Your task to perform on an android device: visit the assistant section in the google photos Image 0: 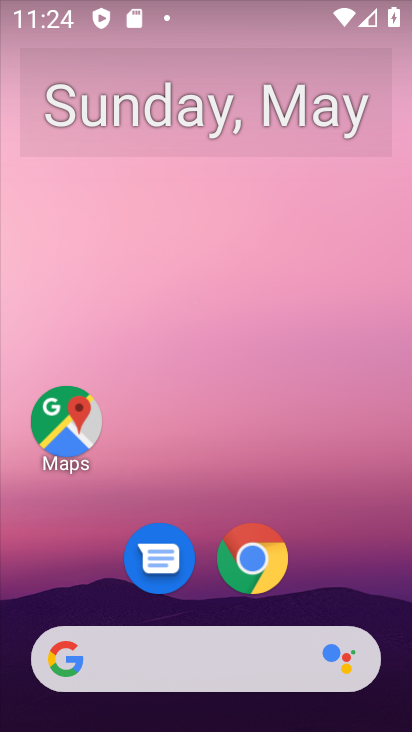
Step 0: drag from (350, 598) to (370, 204)
Your task to perform on an android device: visit the assistant section in the google photos Image 1: 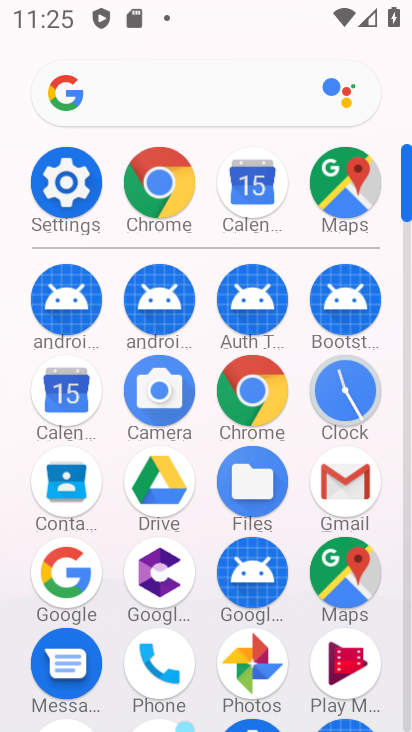
Step 1: click (278, 658)
Your task to perform on an android device: visit the assistant section in the google photos Image 2: 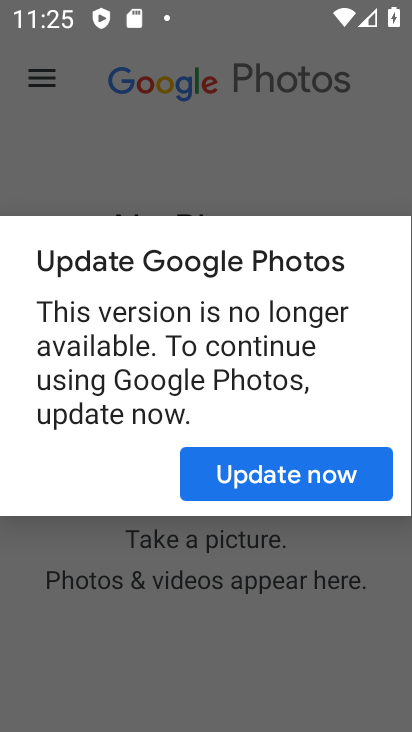
Step 2: click (341, 466)
Your task to perform on an android device: visit the assistant section in the google photos Image 3: 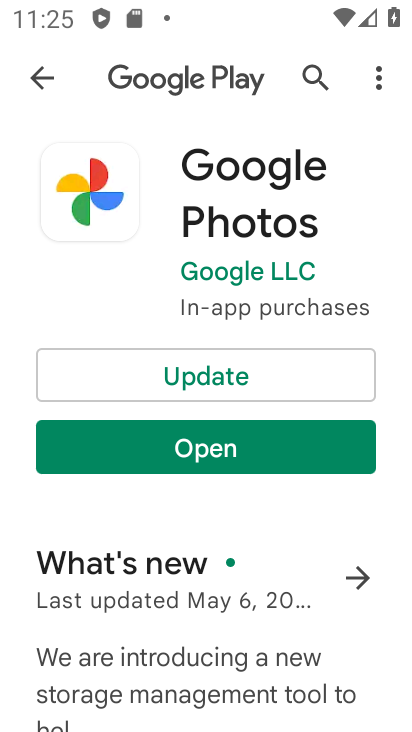
Step 3: click (201, 369)
Your task to perform on an android device: visit the assistant section in the google photos Image 4: 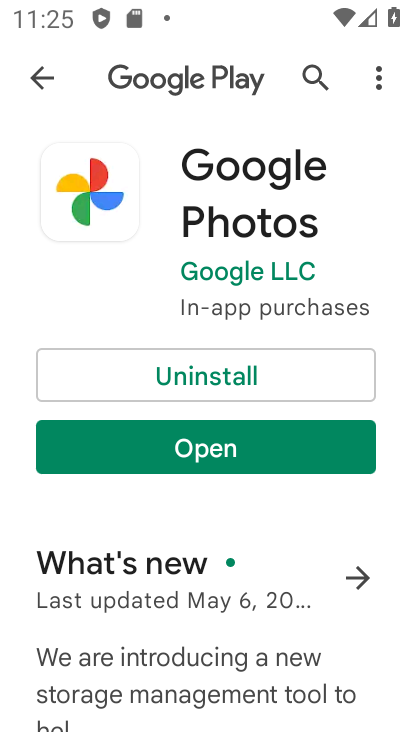
Step 4: click (244, 446)
Your task to perform on an android device: visit the assistant section in the google photos Image 5: 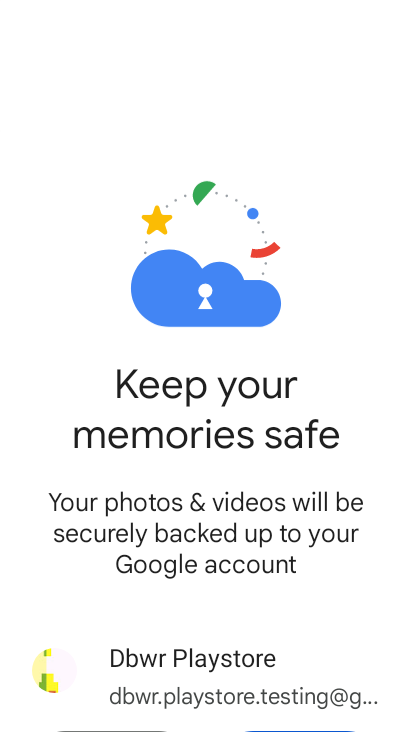
Step 5: press home button
Your task to perform on an android device: visit the assistant section in the google photos Image 6: 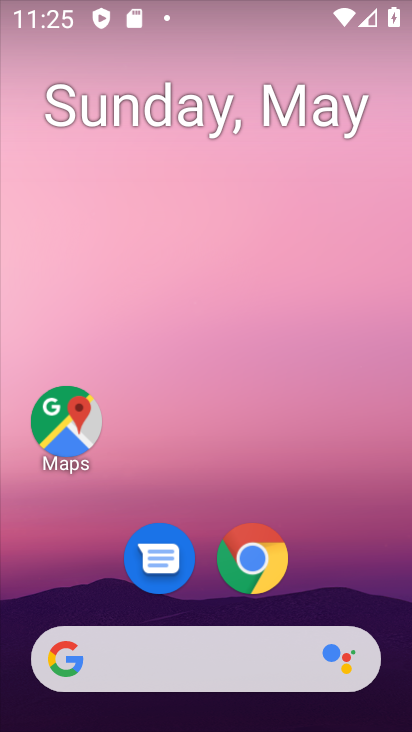
Step 6: drag from (367, 591) to (374, 118)
Your task to perform on an android device: visit the assistant section in the google photos Image 7: 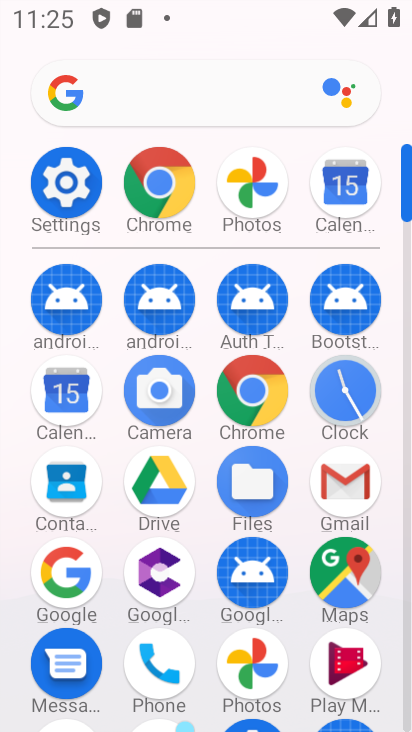
Step 7: click (249, 665)
Your task to perform on an android device: visit the assistant section in the google photos Image 8: 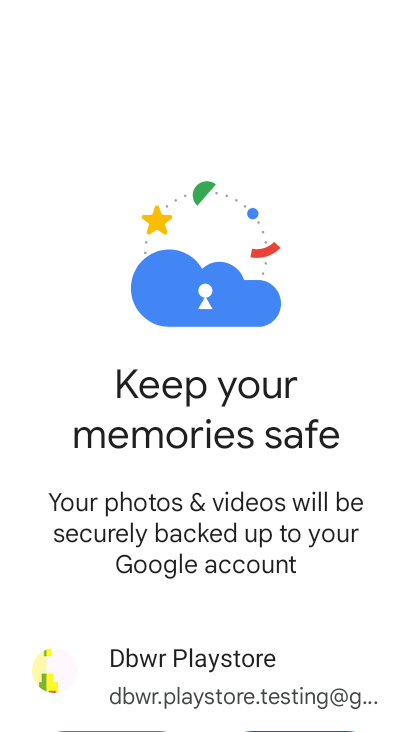
Step 8: drag from (361, 627) to (377, 366)
Your task to perform on an android device: visit the assistant section in the google photos Image 9: 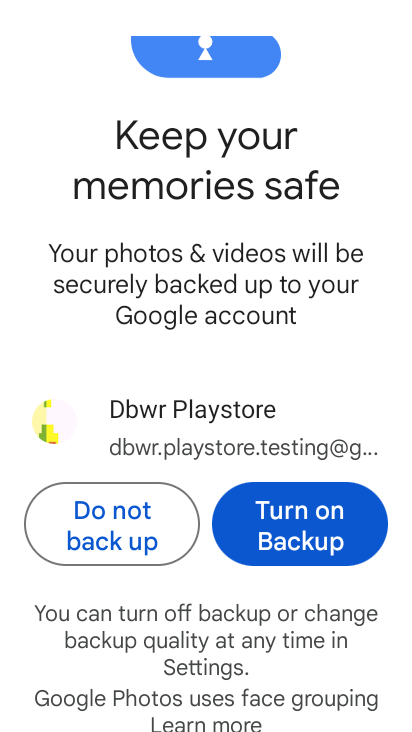
Step 9: drag from (318, 658) to (350, 343)
Your task to perform on an android device: visit the assistant section in the google photos Image 10: 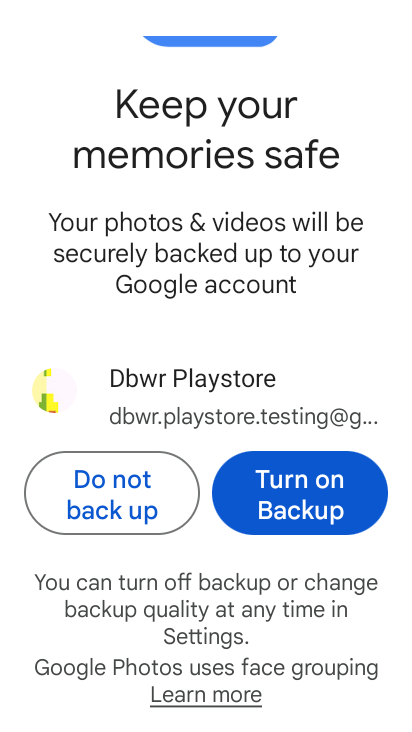
Step 10: click (298, 501)
Your task to perform on an android device: visit the assistant section in the google photos Image 11: 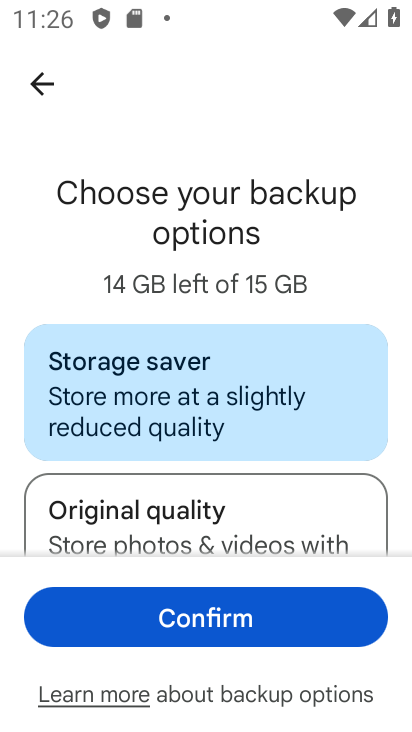
Step 11: click (270, 620)
Your task to perform on an android device: visit the assistant section in the google photos Image 12: 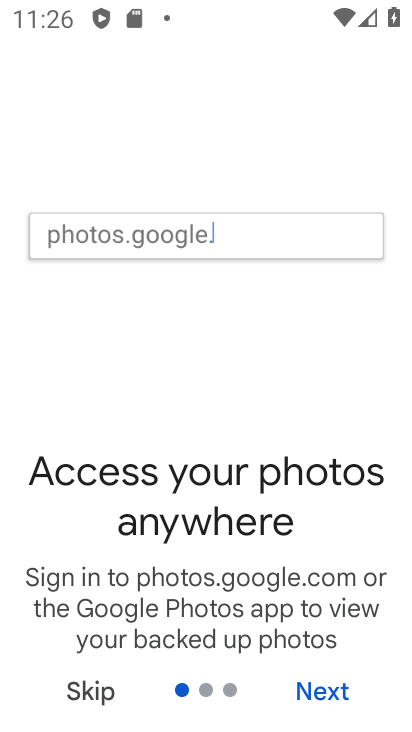
Step 12: click (336, 700)
Your task to perform on an android device: visit the assistant section in the google photos Image 13: 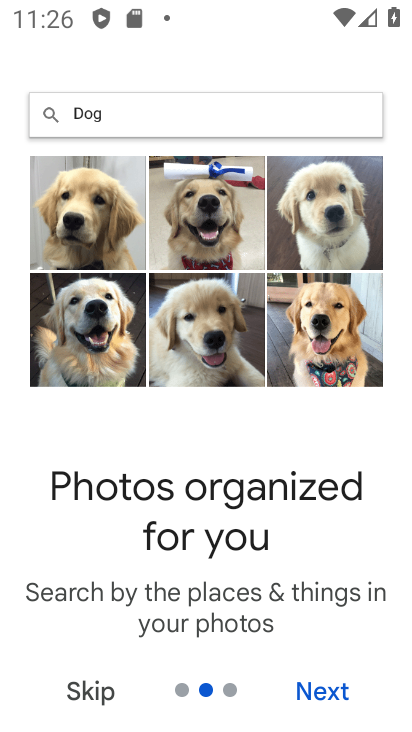
Step 13: click (325, 689)
Your task to perform on an android device: visit the assistant section in the google photos Image 14: 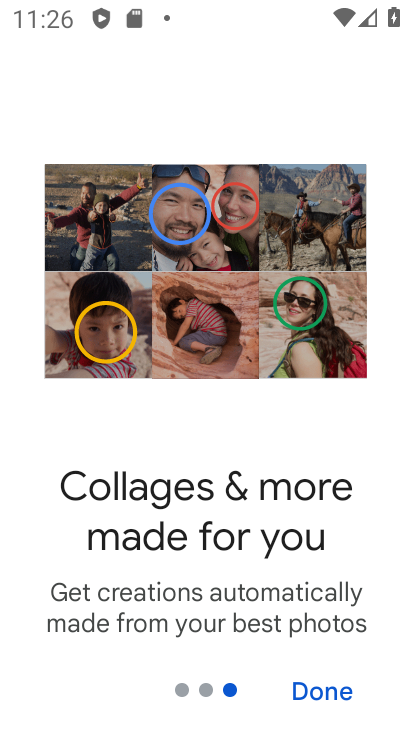
Step 14: click (330, 693)
Your task to perform on an android device: visit the assistant section in the google photos Image 15: 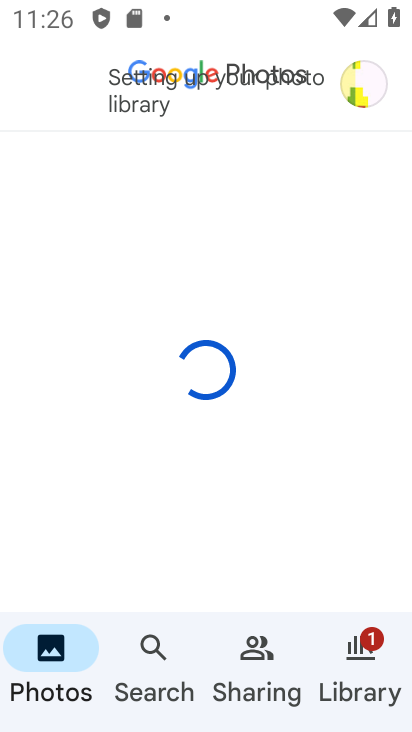
Step 15: click (368, 77)
Your task to perform on an android device: visit the assistant section in the google photos Image 16: 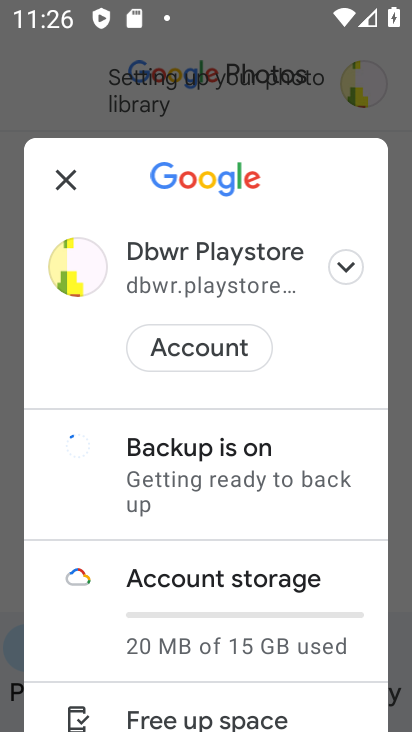
Step 16: drag from (248, 622) to (278, 377)
Your task to perform on an android device: visit the assistant section in the google photos Image 17: 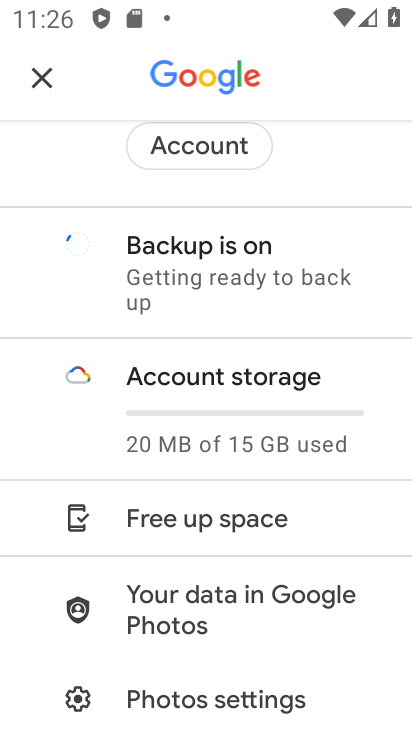
Step 17: drag from (241, 665) to (257, 400)
Your task to perform on an android device: visit the assistant section in the google photos Image 18: 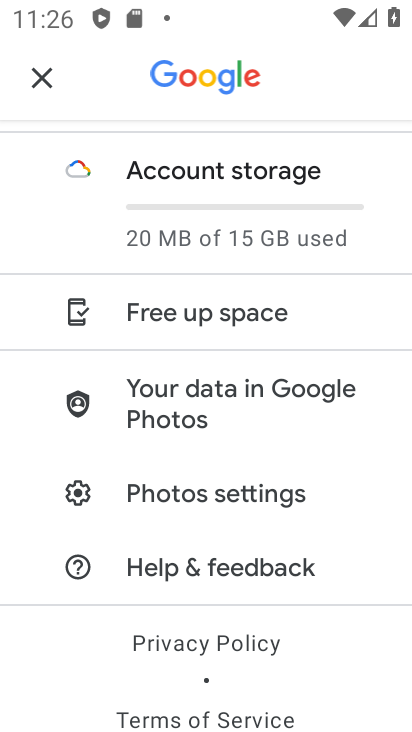
Step 18: drag from (319, 669) to (338, 458)
Your task to perform on an android device: visit the assistant section in the google photos Image 19: 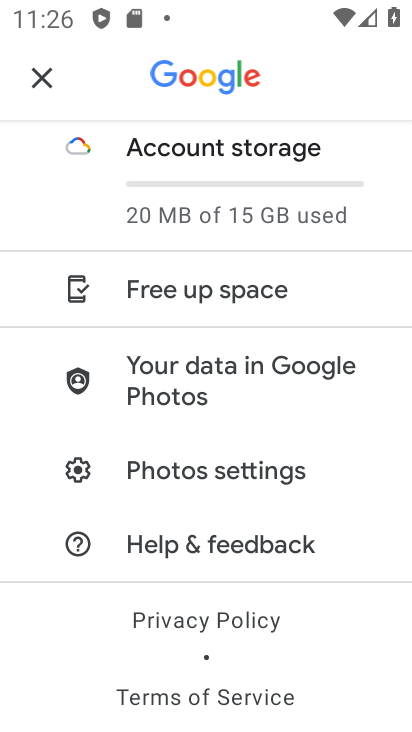
Step 19: click (191, 470)
Your task to perform on an android device: visit the assistant section in the google photos Image 20: 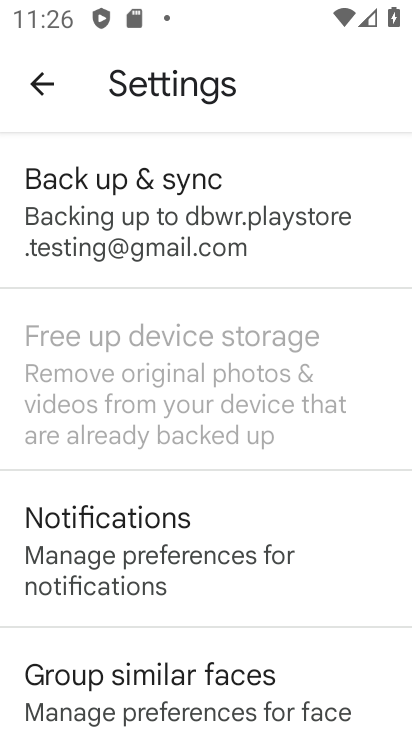
Step 20: task complete